Your task to perform on an android device: Play the last video I watched on Youtube Image 0: 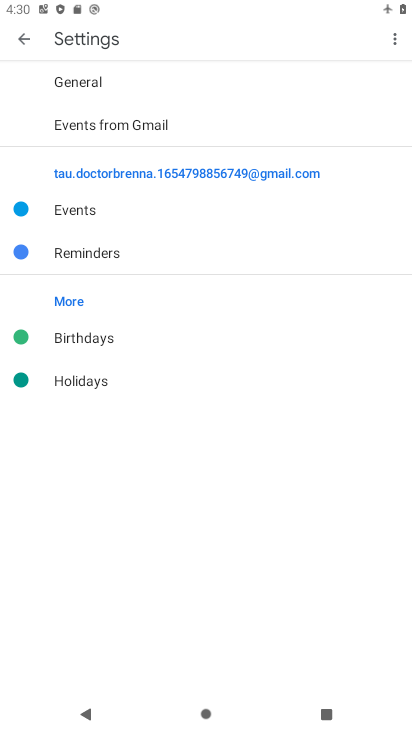
Step 0: press home button
Your task to perform on an android device: Play the last video I watched on Youtube Image 1: 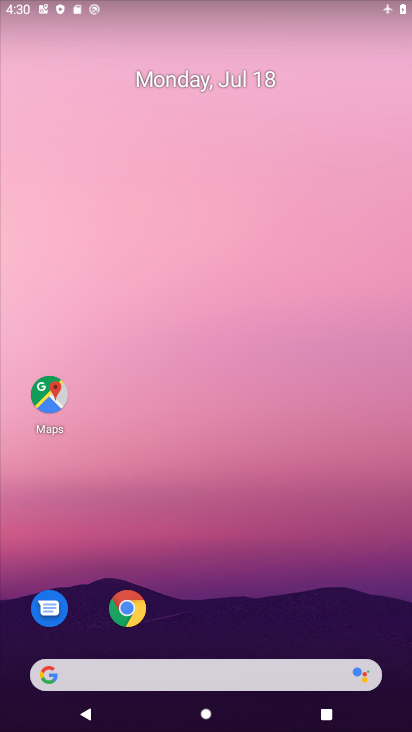
Step 1: drag from (252, 608) to (230, 137)
Your task to perform on an android device: Play the last video I watched on Youtube Image 2: 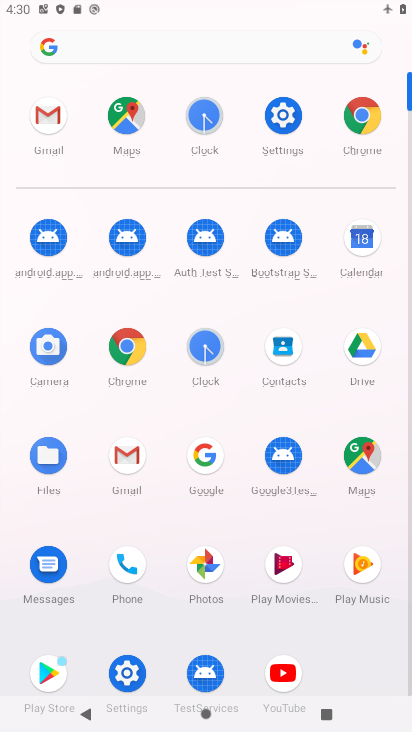
Step 2: click (280, 668)
Your task to perform on an android device: Play the last video I watched on Youtube Image 3: 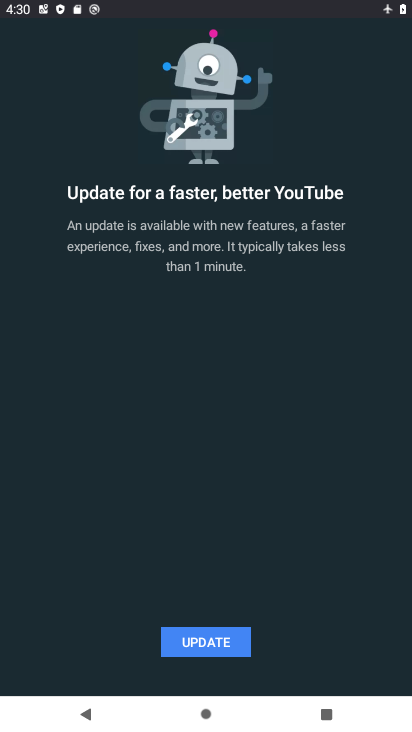
Step 3: click (196, 647)
Your task to perform on an android device: Play the last video I watched on Youtube Image 4: 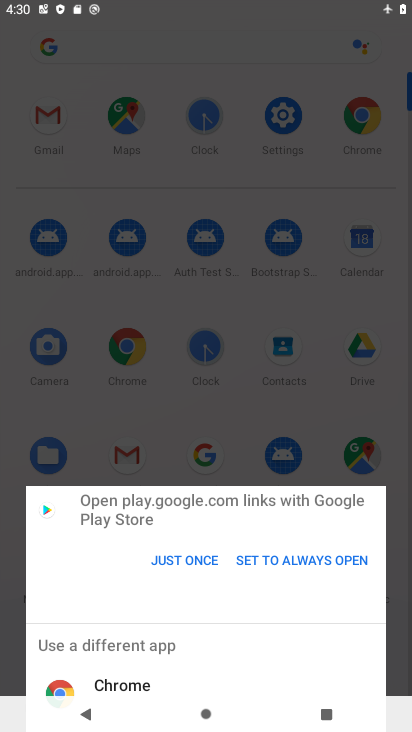
Step 4: click (192, 558)
Your task to perform on an android device: Play the last video I watched on Youtube Image 5: 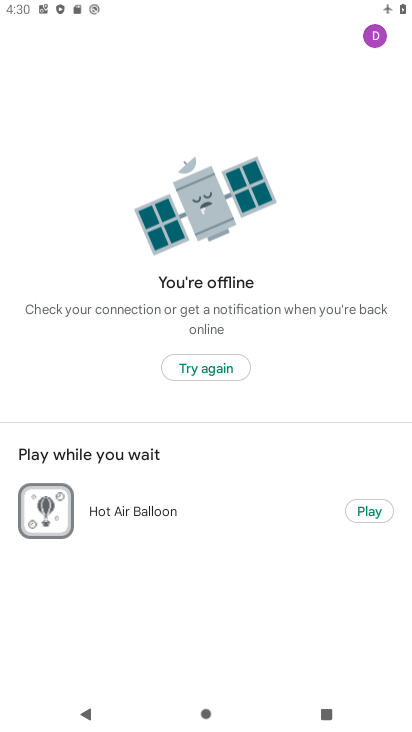
Step 5: task complete